Your task to perform on an android device: Open notification settings Image 0: 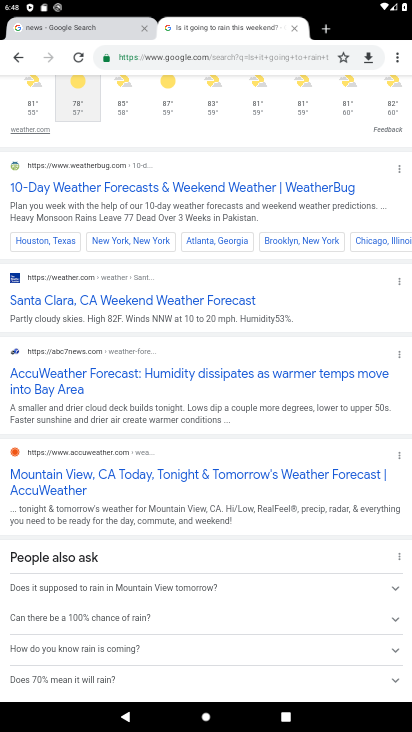
Step 0: press home button
Your task to perform on an android device: Open notification settings Image 1: 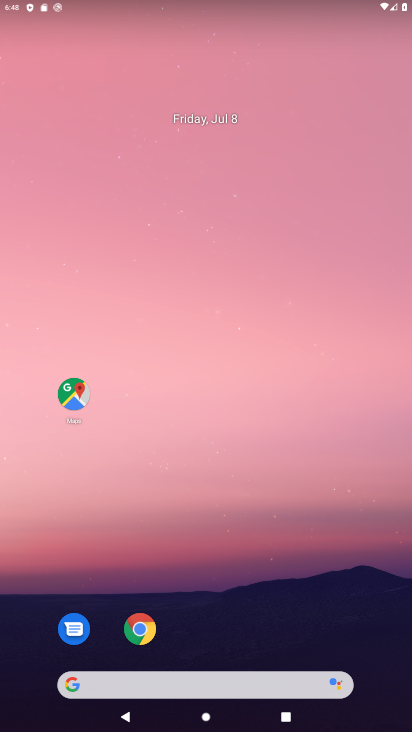
Step 1: drag from (324, 651) to (308, 1)
Your task to perform on an android device: Open notification settings Image 2: 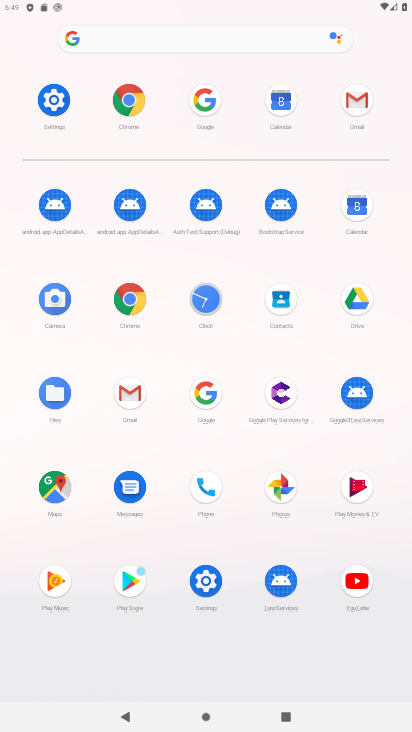
Step 2: click (61, 95)
Your task to perform on an android device: Open notification settings Image 3: 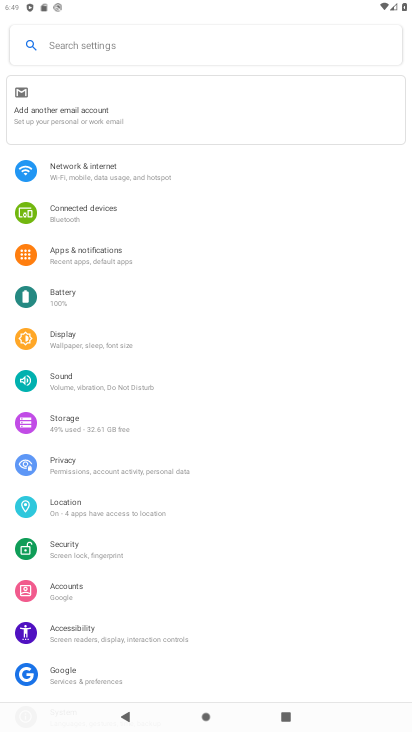
Step 3: click (95, 265)
Your task to perform on an android device: Open notification settings Image 4: 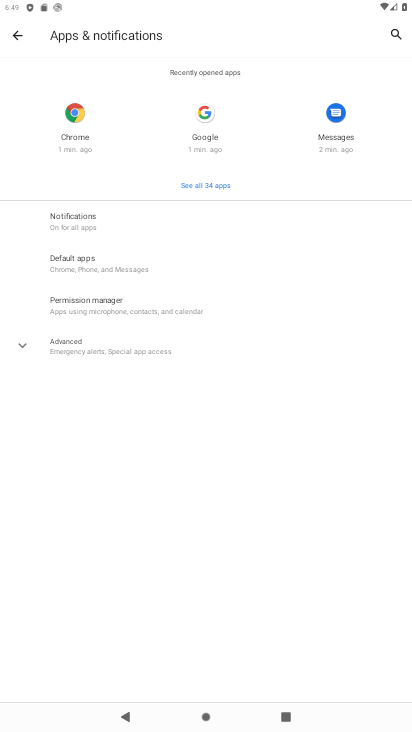
Step 4: click (141, 235)
Your task to perform on an android device: Open notification settings Image 5: 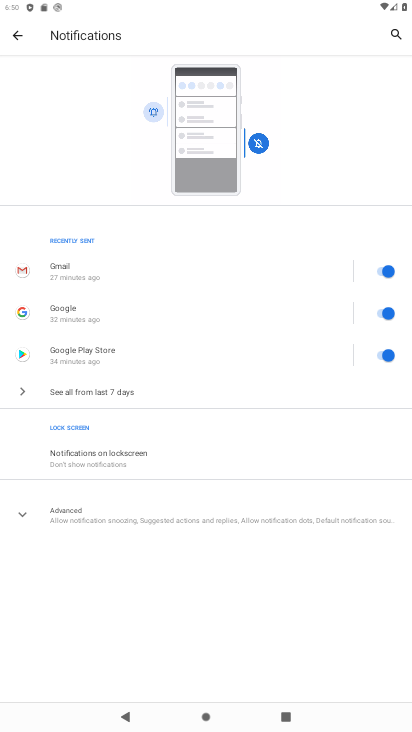
Step 5: task complete